Your task to perform on an android device: Clear the cart on ebay.com. Add dell alienware to the cart on ebay.com Image 0: 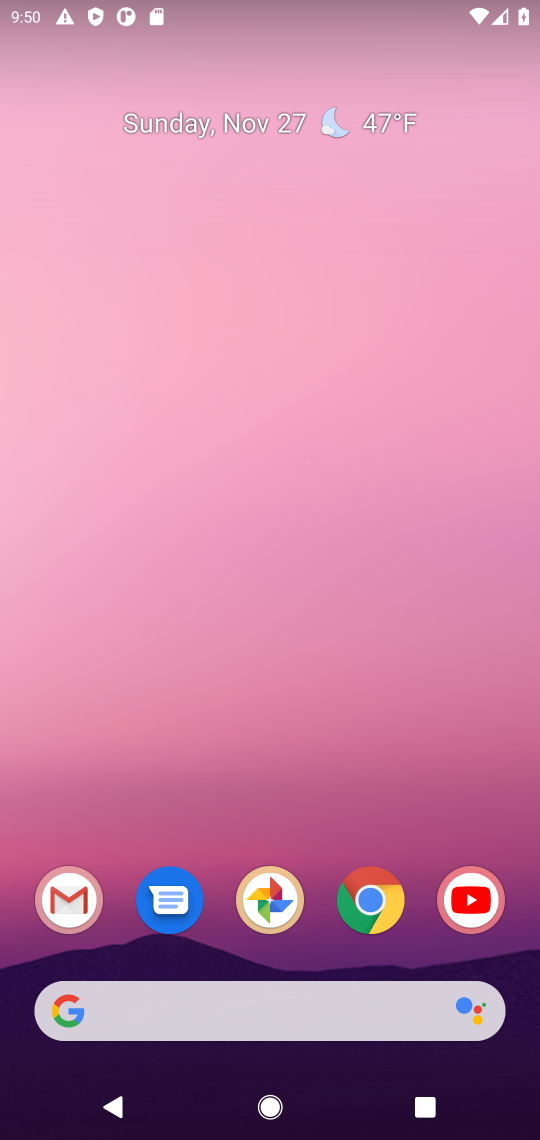
Step 0: click (372, 907)
Your task to perform on an android device: Clear the cart on ebay.com. Add dell alienware to the cart on ebay.com Image 1: 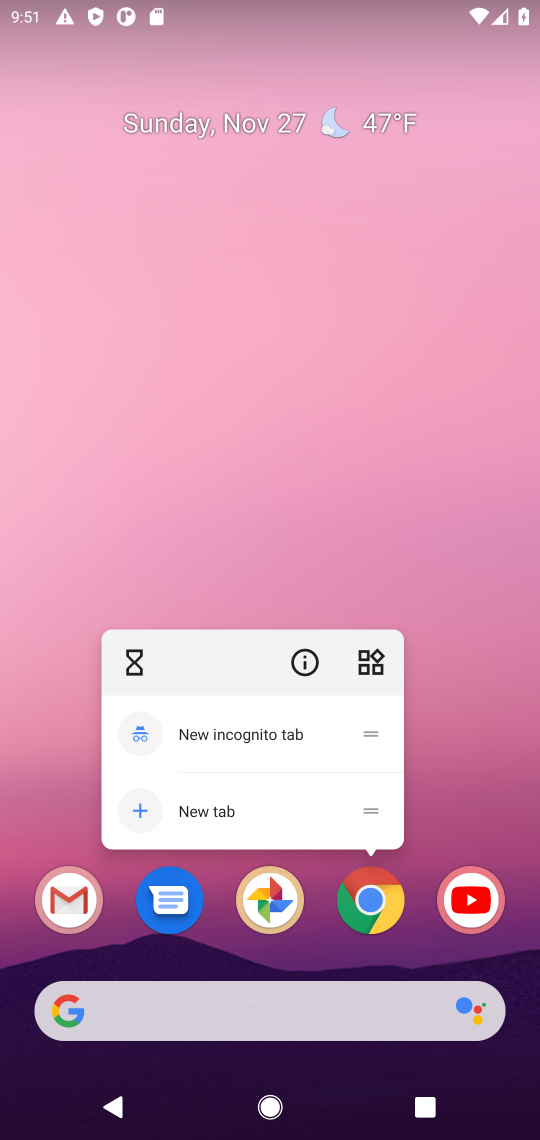
Step 1: click (375, 888)
Your task to perform on an android device: Clear the cart on ebay.com. Add dell alienware to the cart on ebay.com Image 2: 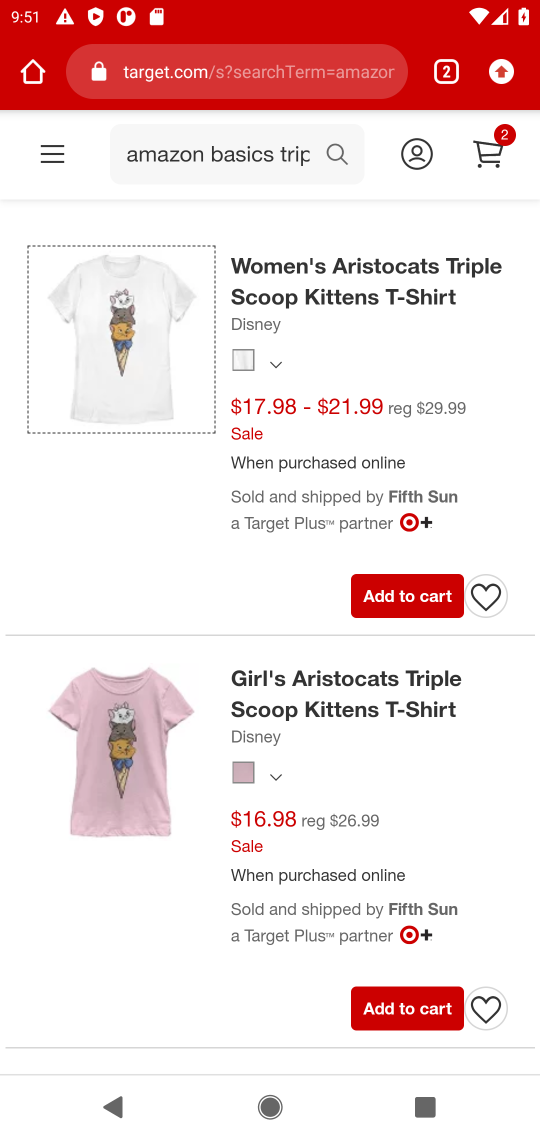
Step 2: click (247, 78)
Your task to perform on an android device: Clear the cart on ebay.com. Add dell alienware to the cart on ebay.com Image 3: 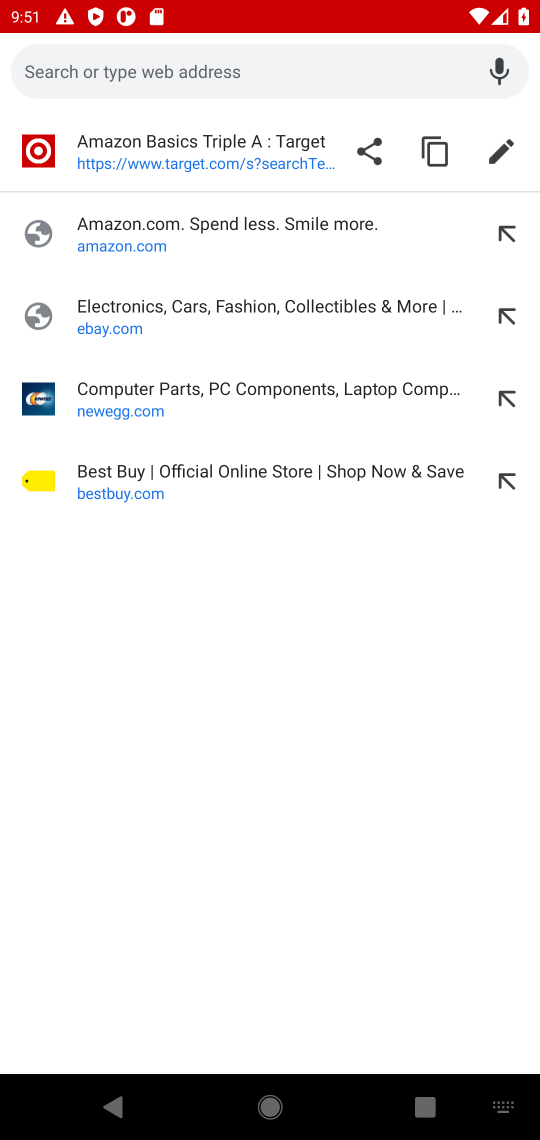
Step 3: click (106, 320)
Your task to perform on an android device: Clear the cart on ebay.com. Add dell alienware to the cart on ebay.com Image 4: 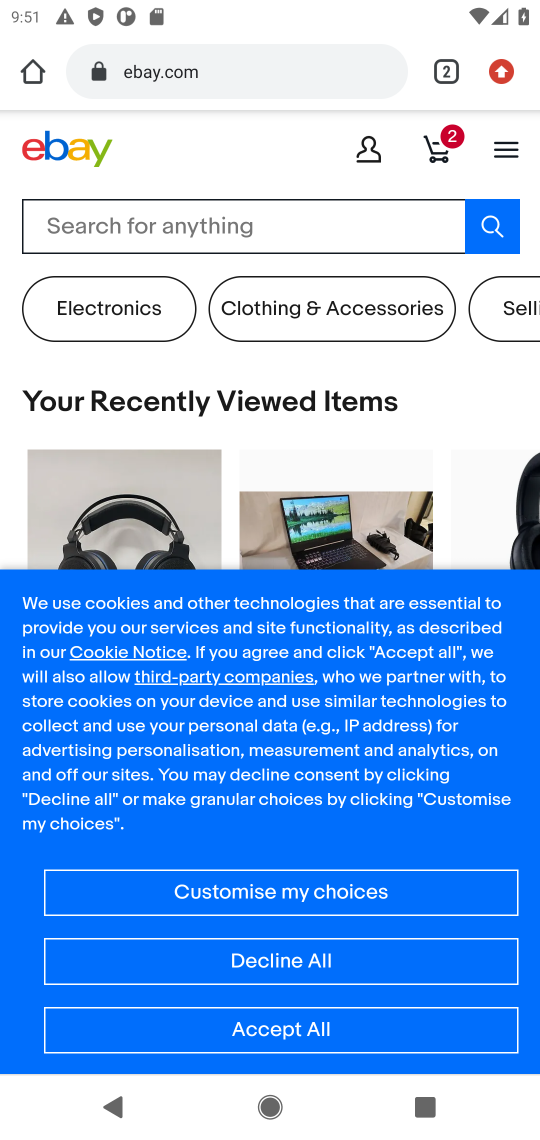
Step 4: click (439, 156)
Your task to perform on an android device: Clear the cart on ebay.com. Add dell alienware to the cart on ebay.com Image 5: 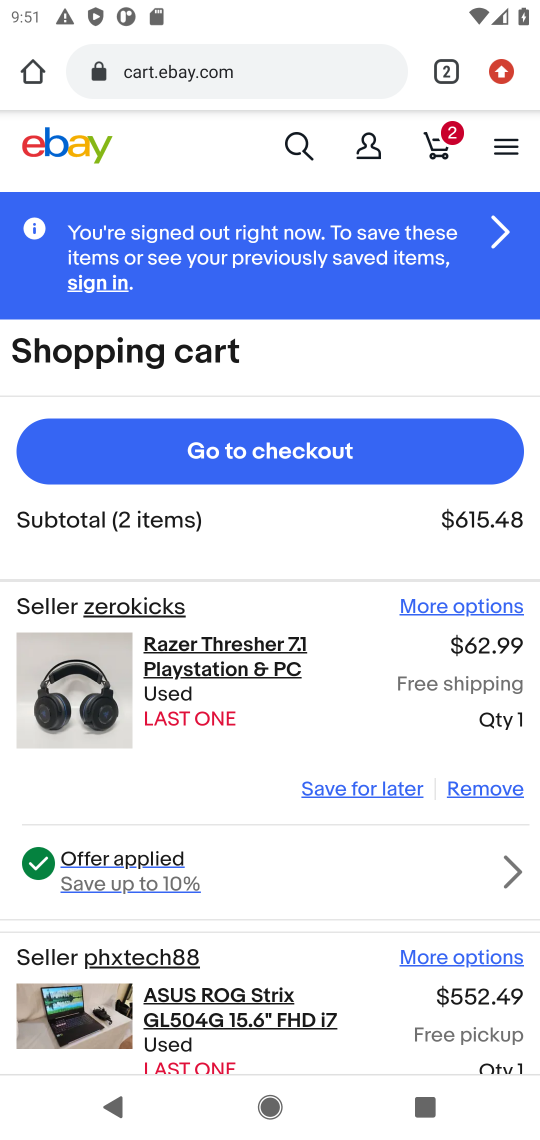
Step 5: click (468, 790)
Your task to perform on an android device: Clear the cart on ebay.com. Add dell alienware to the cart on ebay.com Image 6: 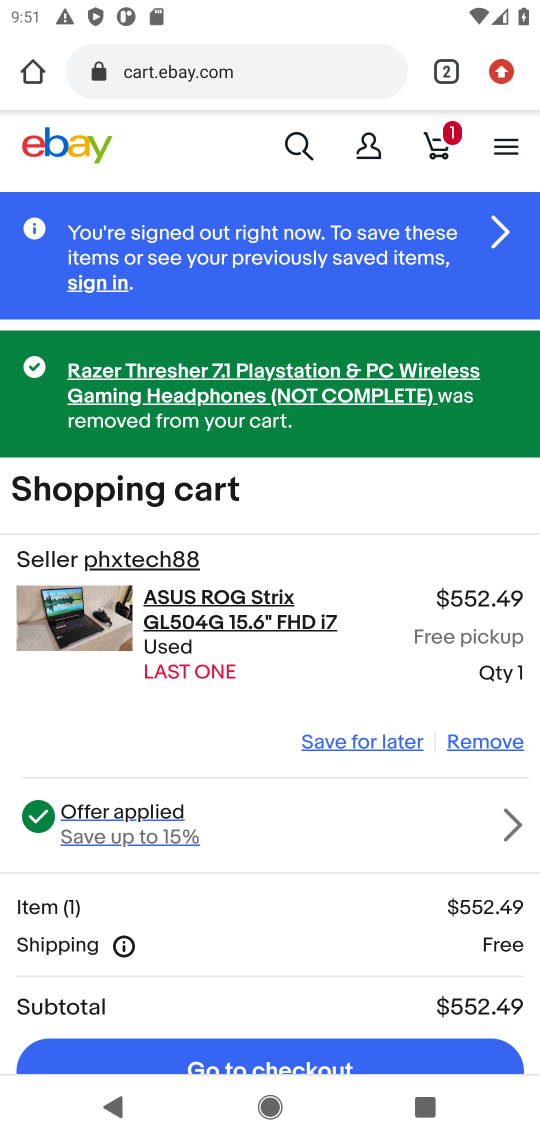
Step 6: click (484, 744)
Your task to perform on an android device: Clear the cart on ebay.com. Add dell alienware to the cart on ebay.com Image 7: 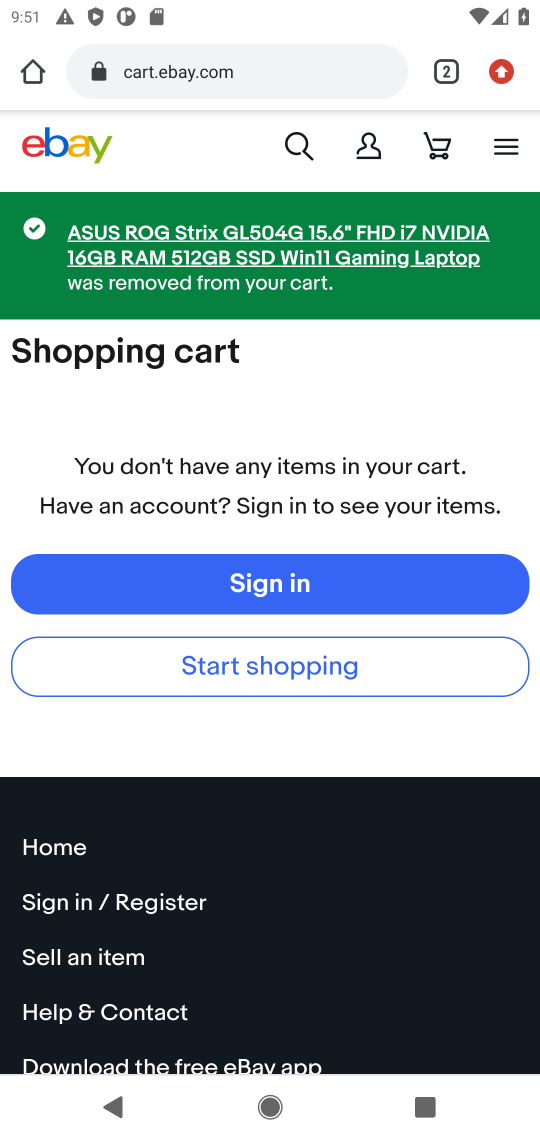
Step 7: click (297, 143)
Your task to perform on an android device: Clear the cart on ebay.com. Add dell alienware to the cart on ebay.com Image 8: 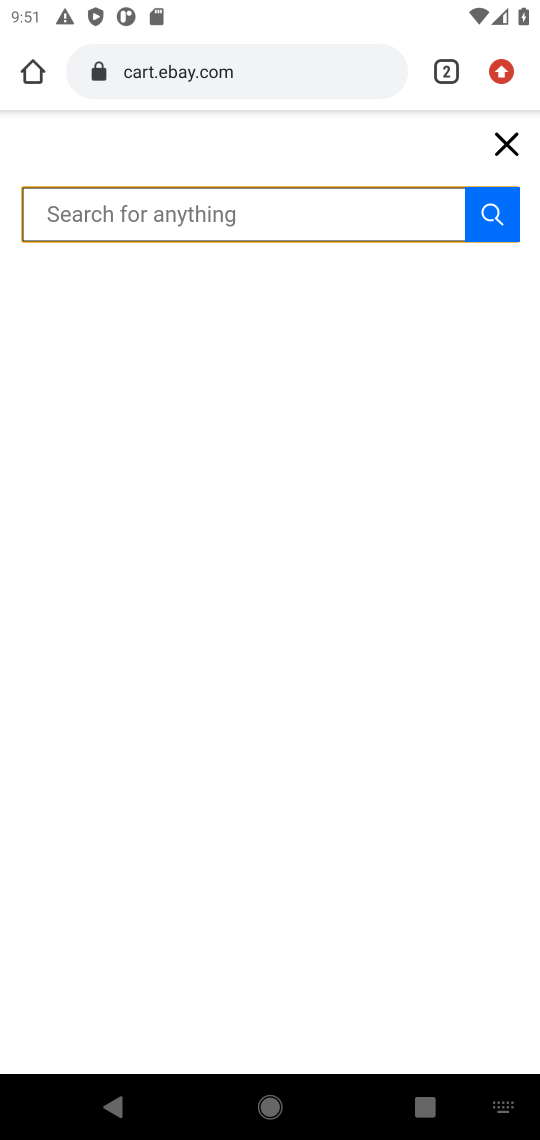
Step 8: type "dell alienware"
Your task to perform on an android device: Clear the cart on ebay.com. Add dell alienware to the cart on ebay.com Image 9: 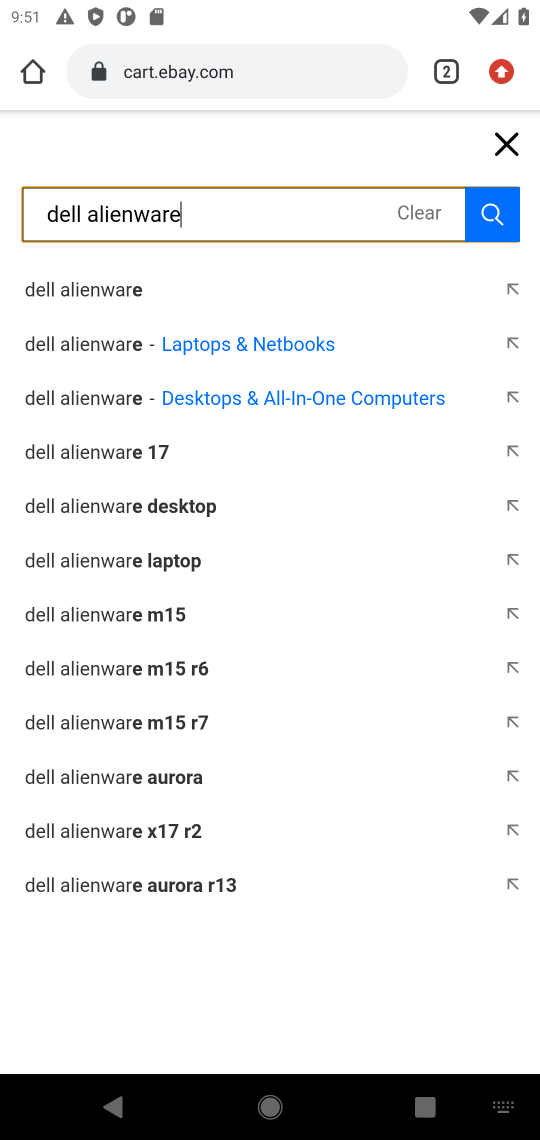
Step 9: click (85, 290)
Your task to perform on an android device: Clear the cart on ebay.com. Add dell alienware to the cart on ebay.com Image 10: 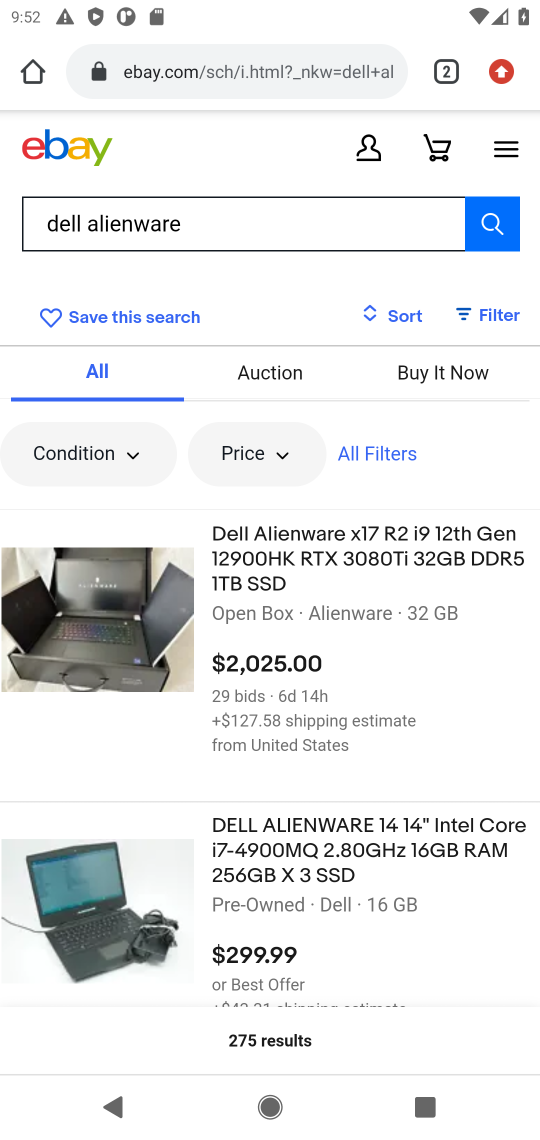
Step 10: drag from (496, 891) to (491, 659)
Your task to perform on an android device: Clear the cart on ebay.com. Add dell alienware to the cart on ebay.com Image 11: 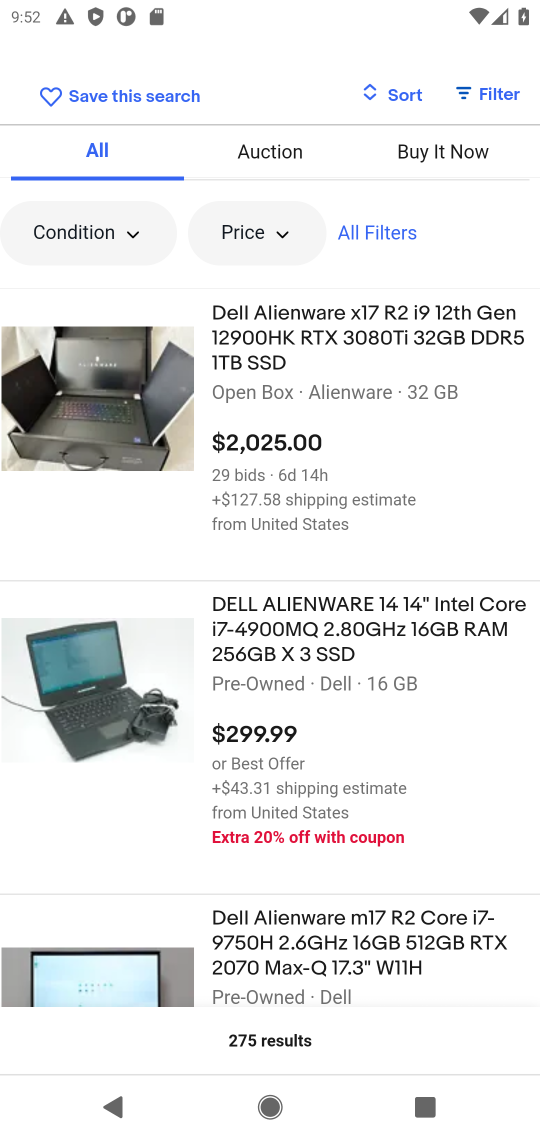
Step 11: click (239, 640)
Your task to perform on an android device: Clear the cart on ebay.com. Add dell alienware to the cart on ebay.com Image 12: 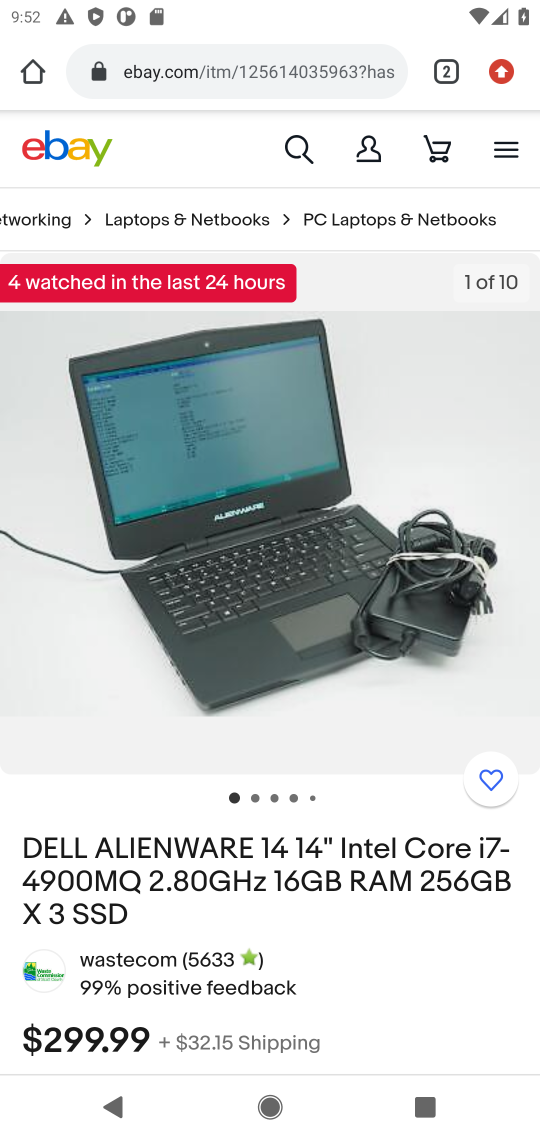
Step 12: drag from (358, 912) to (360, 426)
Your task to perform on an android device: Clear the cart on ebay.com. Add dell alienware to the cart on ebay.com Image 13: 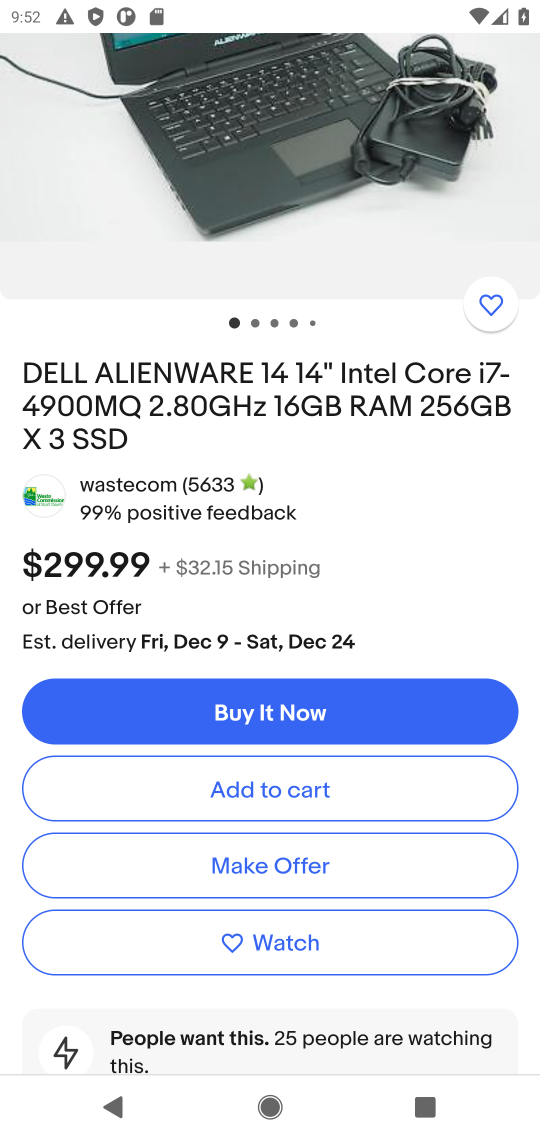
Step 13: click (264, 786)
Your task to perform on an android device: Clear the cart on ebay.com. Add dell alienware to the cart on ebay.com Image 14: 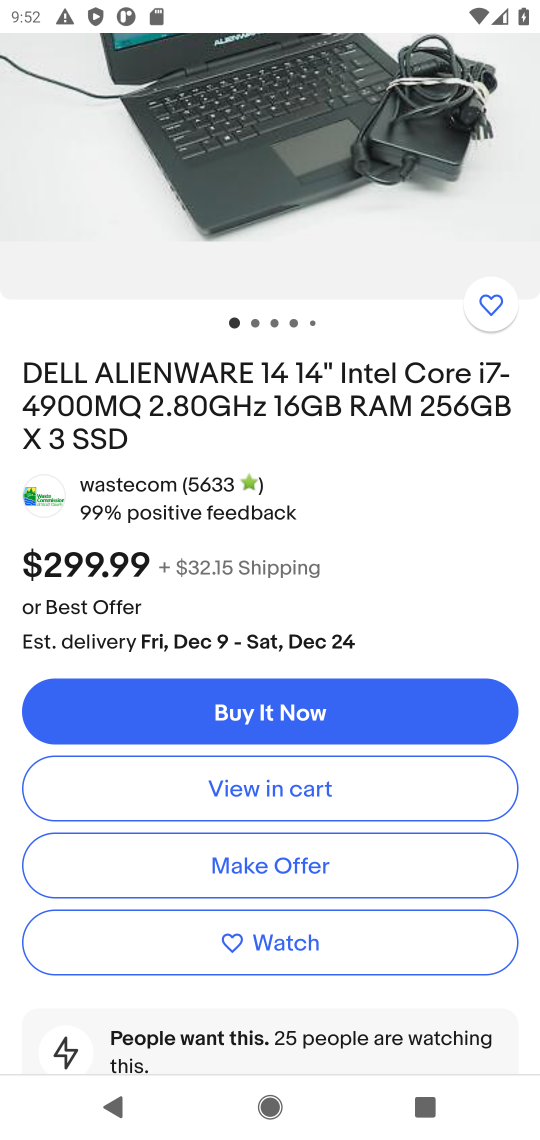
Step 14: task complete